Your task to perform on an android device: Add "asus zenbook" to the cart on bestbuy, then select checkout. Image 0: 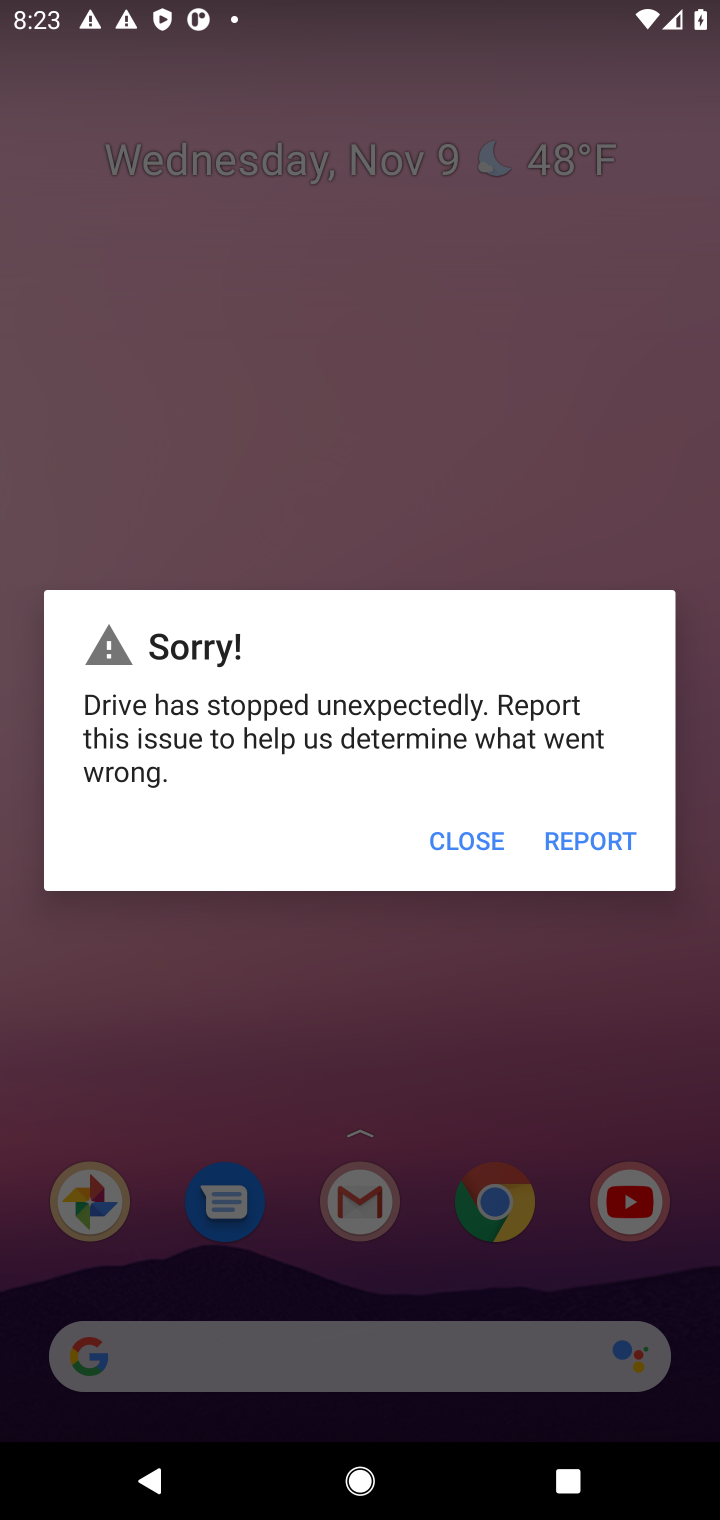
Step 0: press home button
Your task to perform on an android device: Add "asus zenbook" to the cart on bestbuy, then select checkout. Image 1: 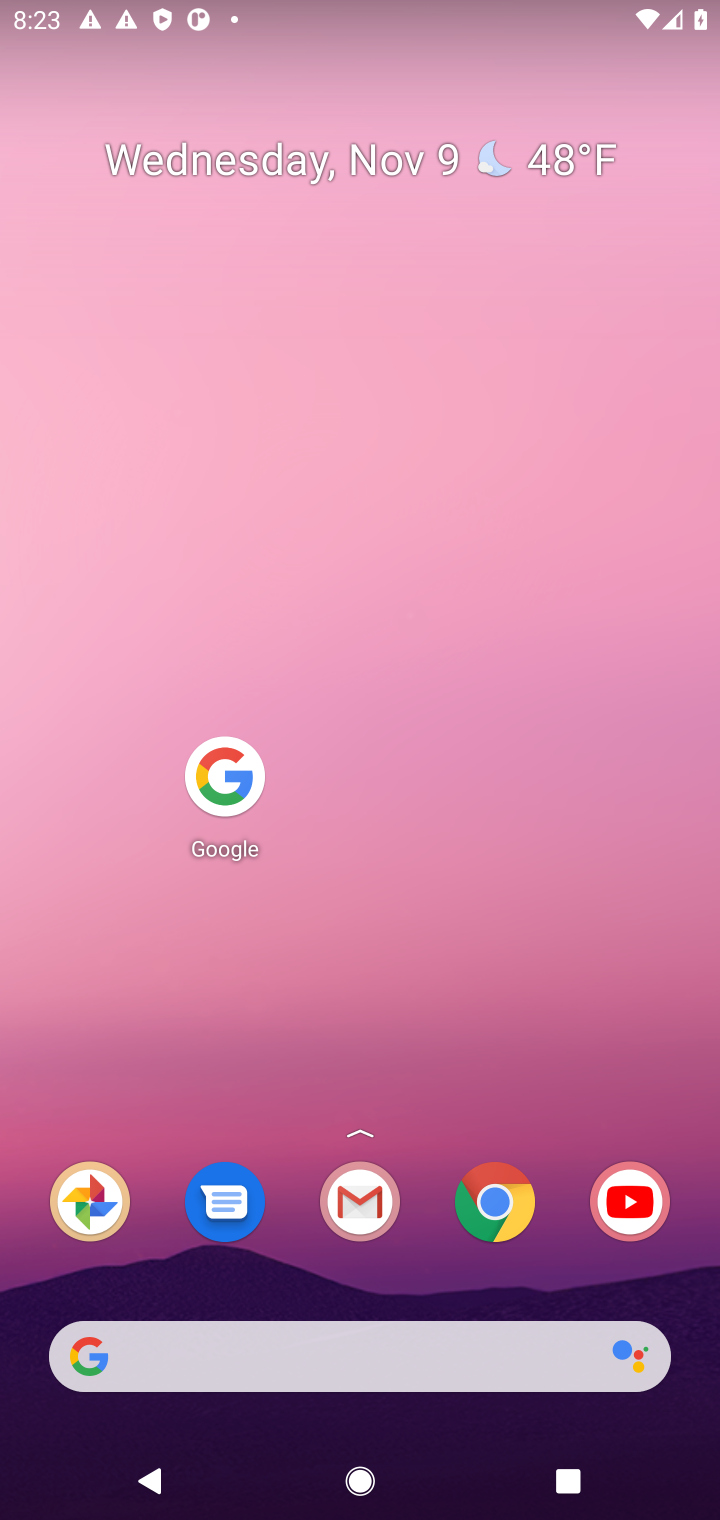
Step 1: click (226, 783)
Your task to perform on an android device: Add "asus zenbook" to the cart on bestbuy, then select checkout. Image 2: 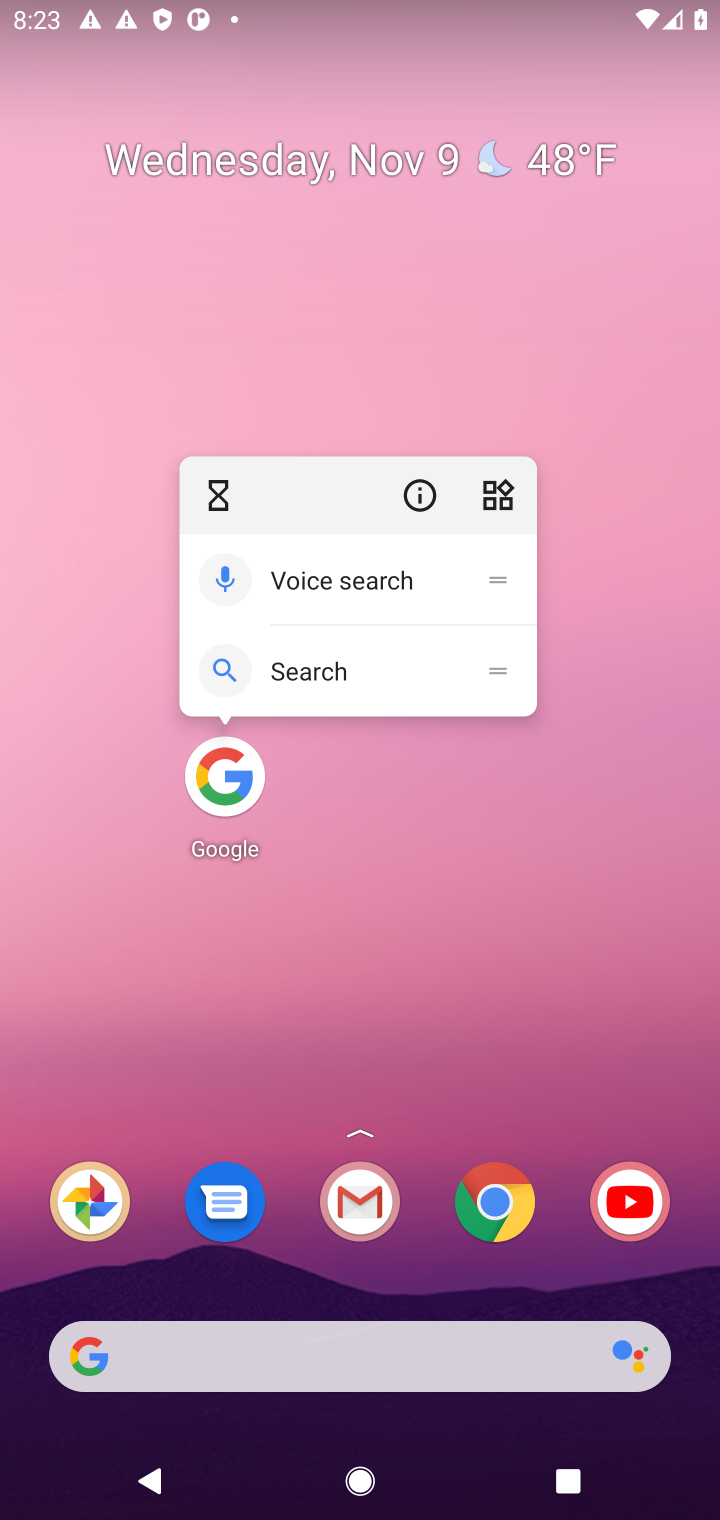
Step 2: click (226, 789)
Your task to perform on an android device: Add "asus zenbook" to the cart on bestbuy, then select checkout. Image 3: 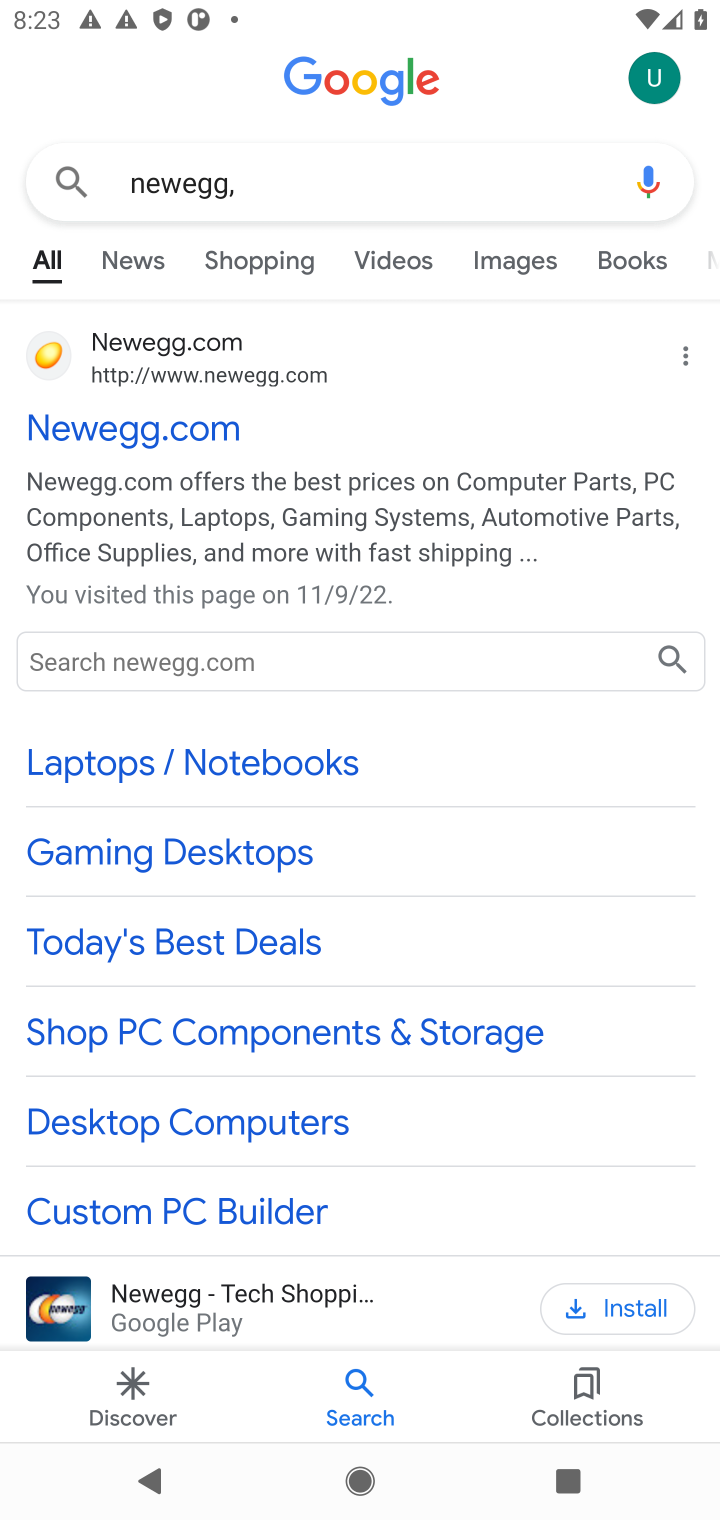
Step 3: click (290, 178)
Your task to perform on an android device: Add "asus zenbook" to the cart on bestbuy, then select checkout. Image 4: 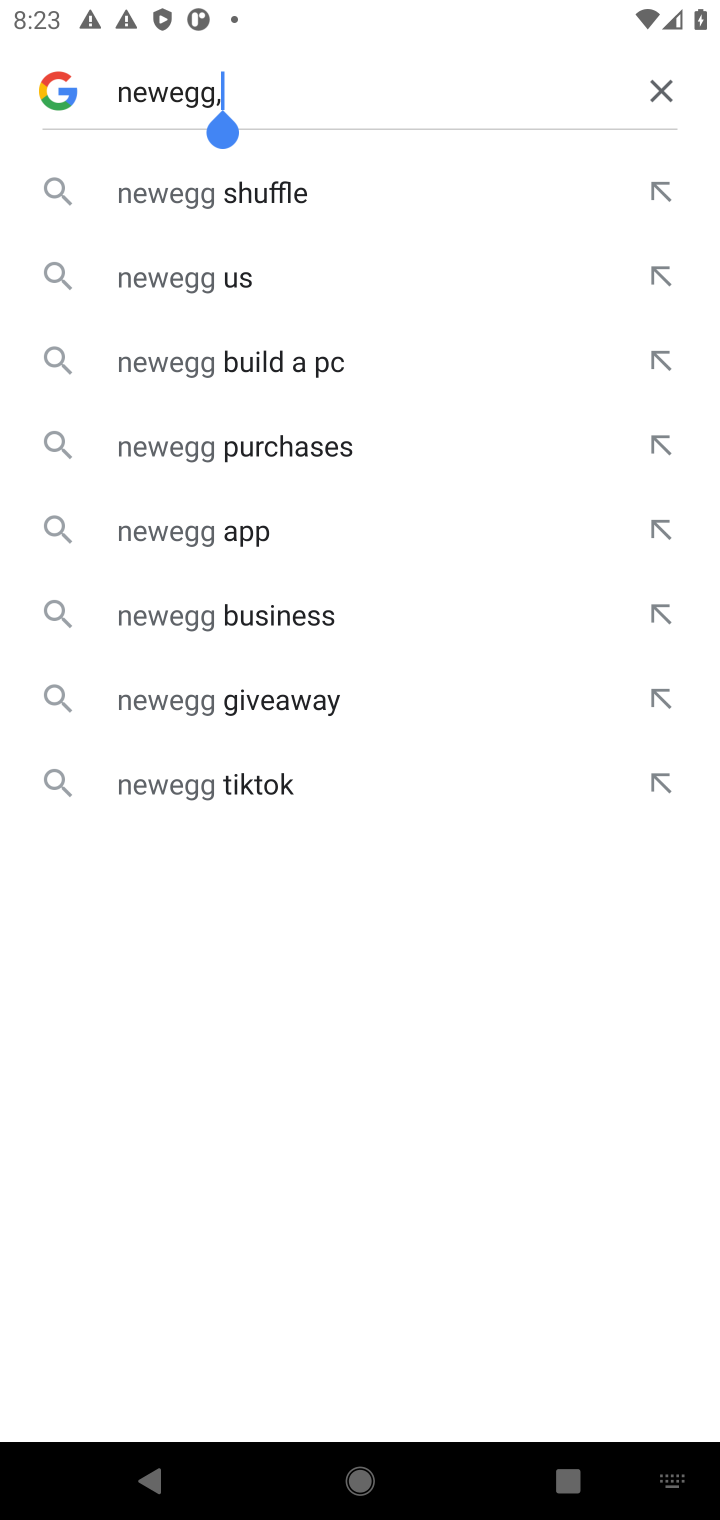
Step 4: click (652, 83)
Your task to perform on an android device: Add "asus zenbook" to the cart on bestbuy, then select checkout. Image 5: 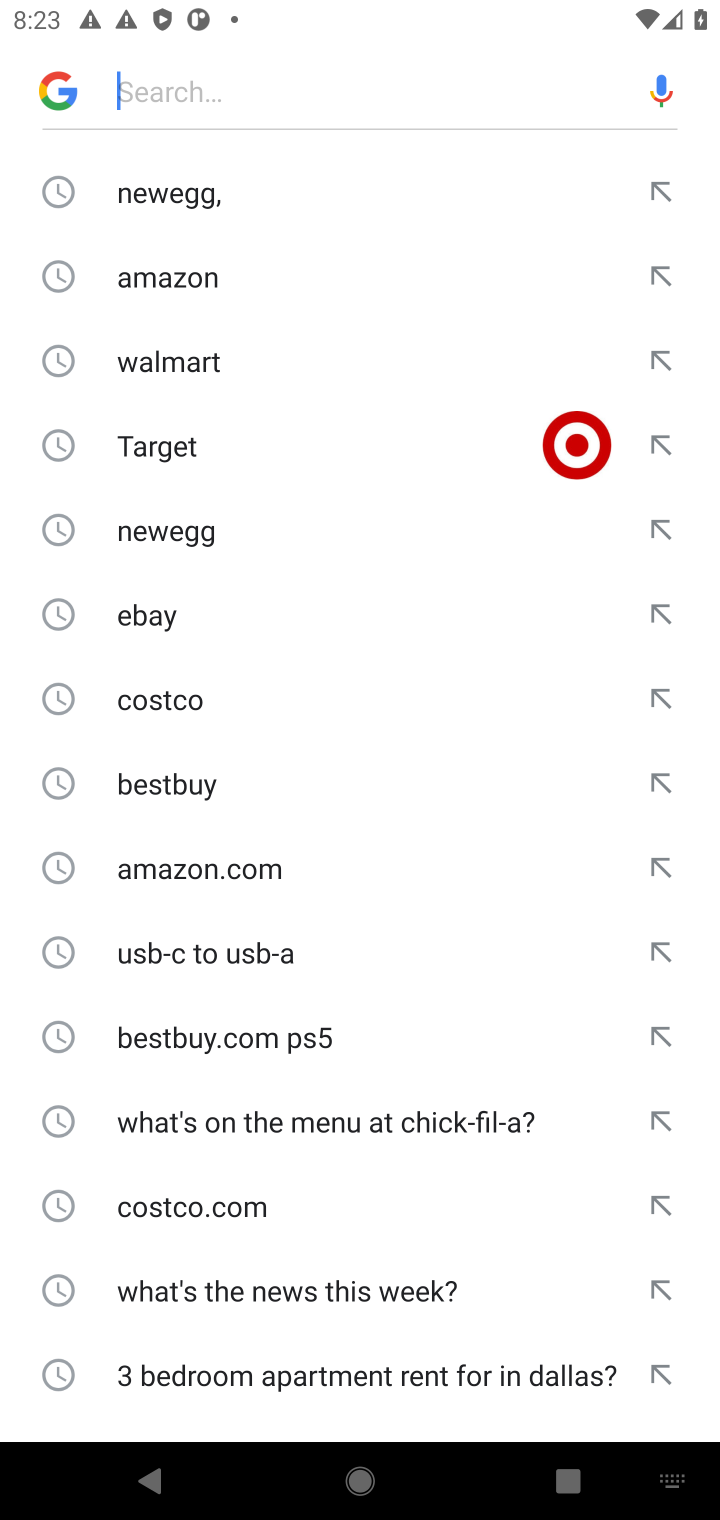
Step 5: click (184, 780)
Your task to perform on an android device: Add "asus zenbook" to the cart on bestbuy, then select checkout. Image 6: 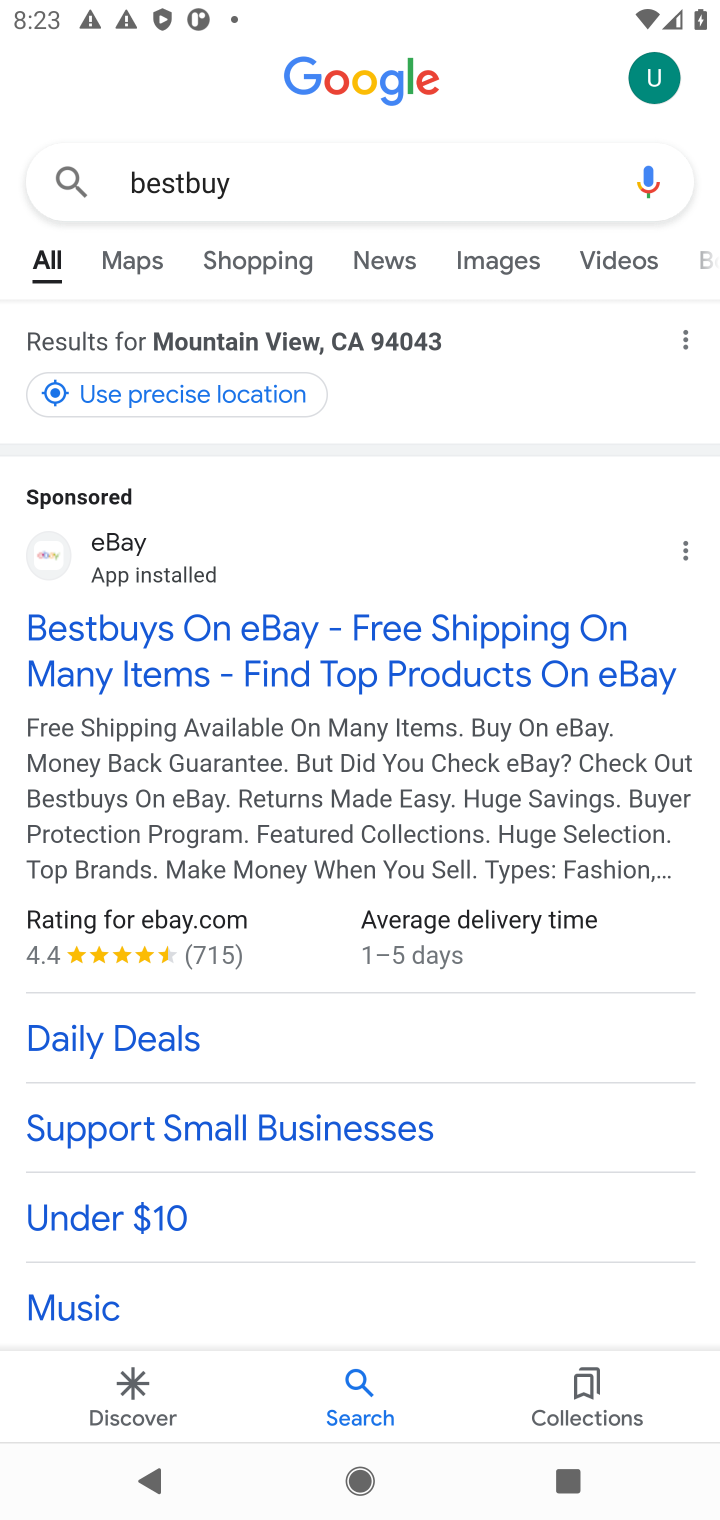
Step 6: drag from (337, 1037) to (557, 295)
Your task to perform on an android device: Add "asus zenbook" to the cart on bestbuy, then select checkout. Image 7: 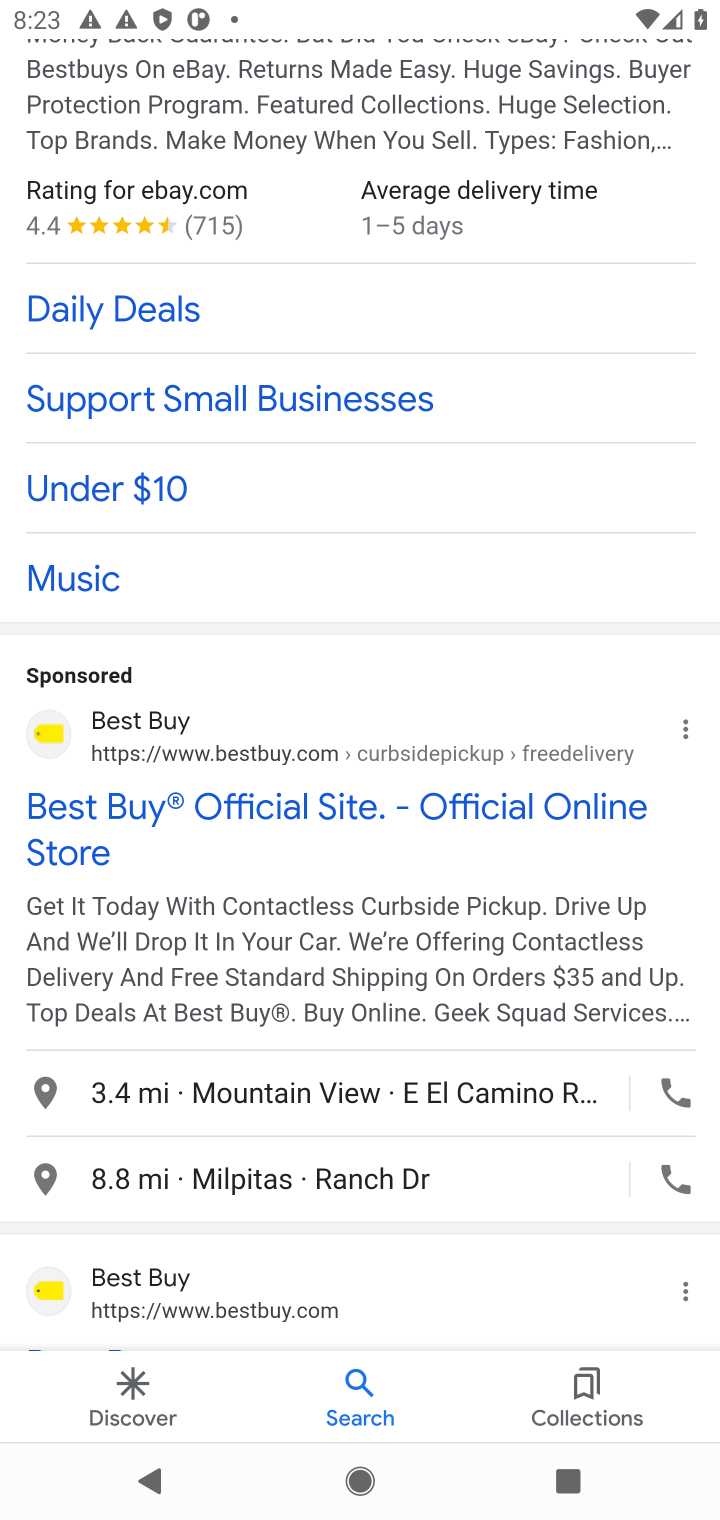
Step 7: click (133, 809)
Your task to perform on an android device: Add "asus zenbook" to the cart on bestbuy, then select checkout. Image 8: 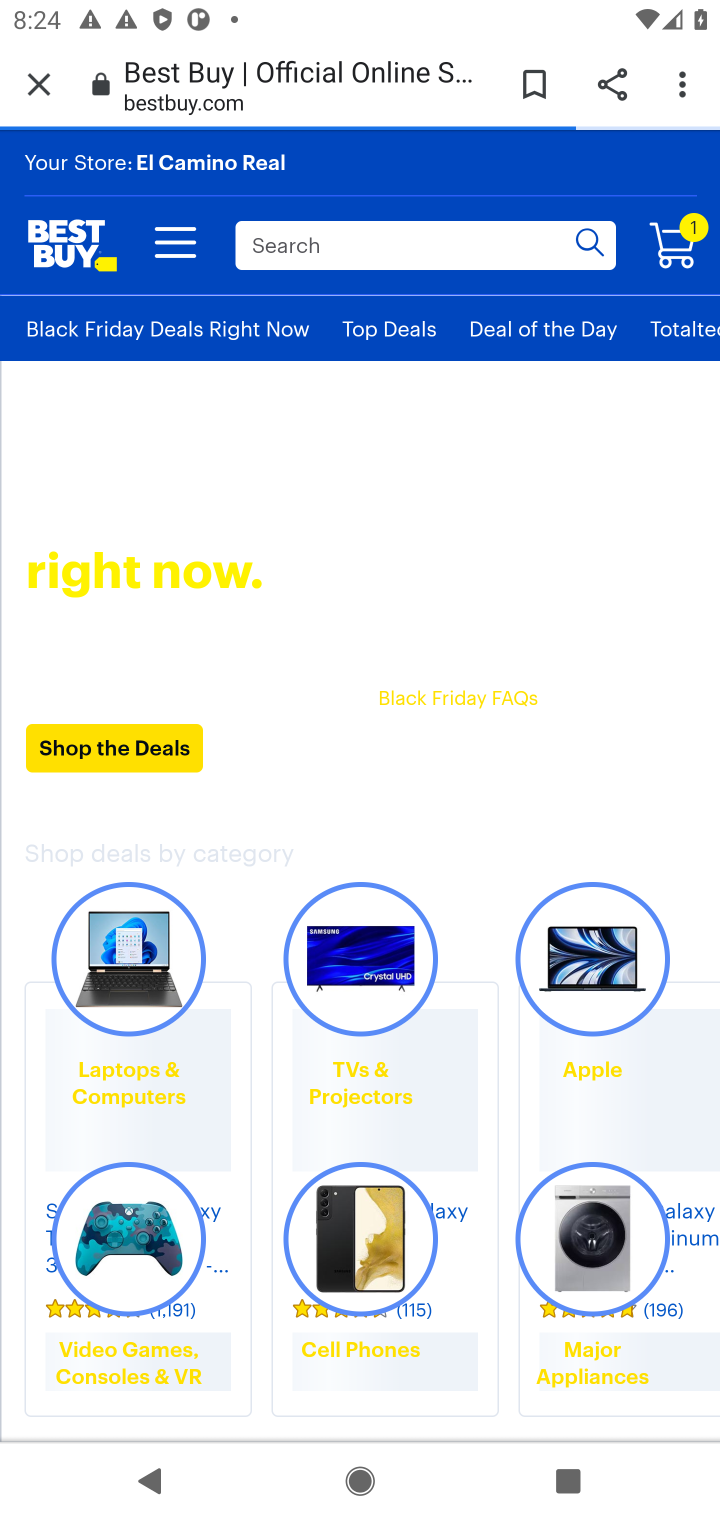
Step 8: click (327, 241)
Your task to perform on an android device: Add "asus zenbook" to the cart on bestbuy, then select checkout. Image 9: 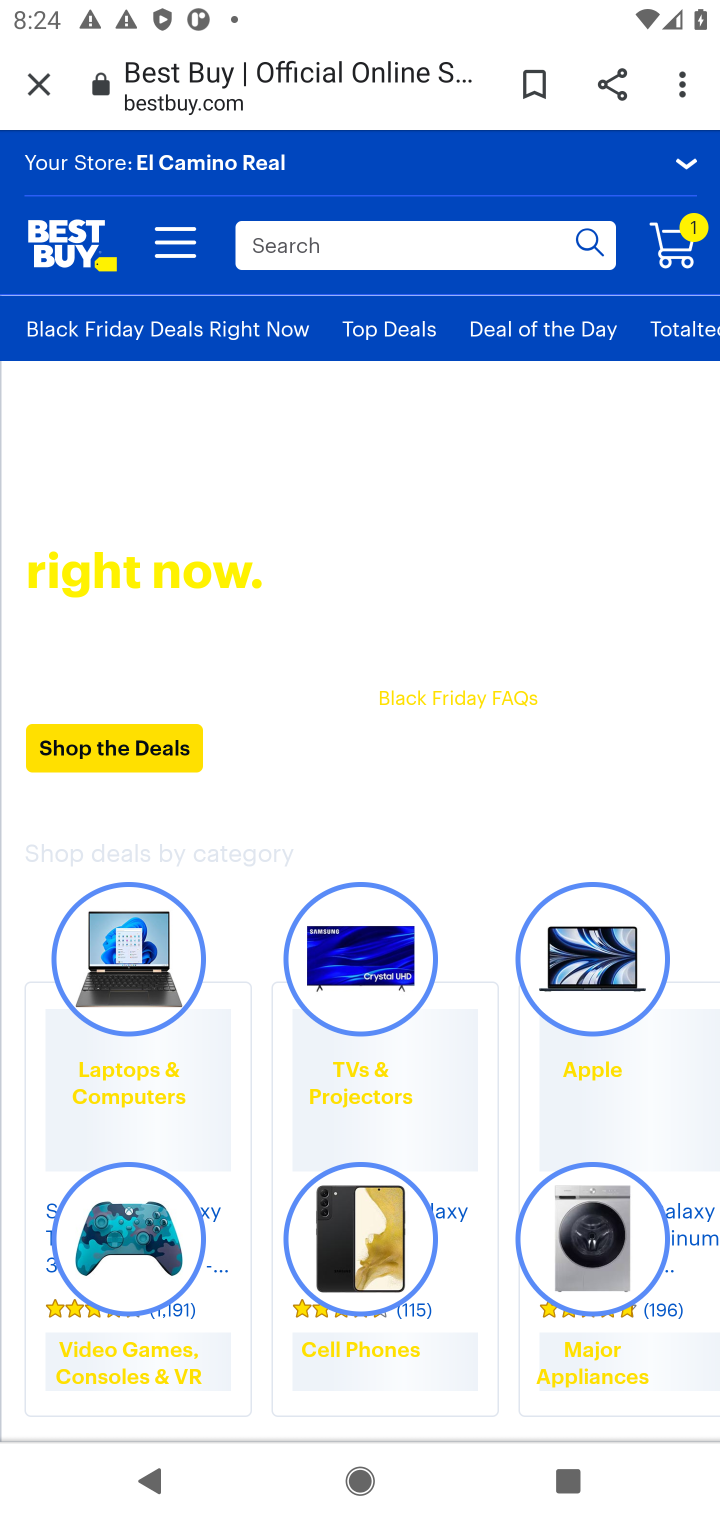
Step 9: click (312, 239)
Your task to perform on an android device: Add "asus zenbook" to the cart on bestbuy, then select checkout. Image 10: 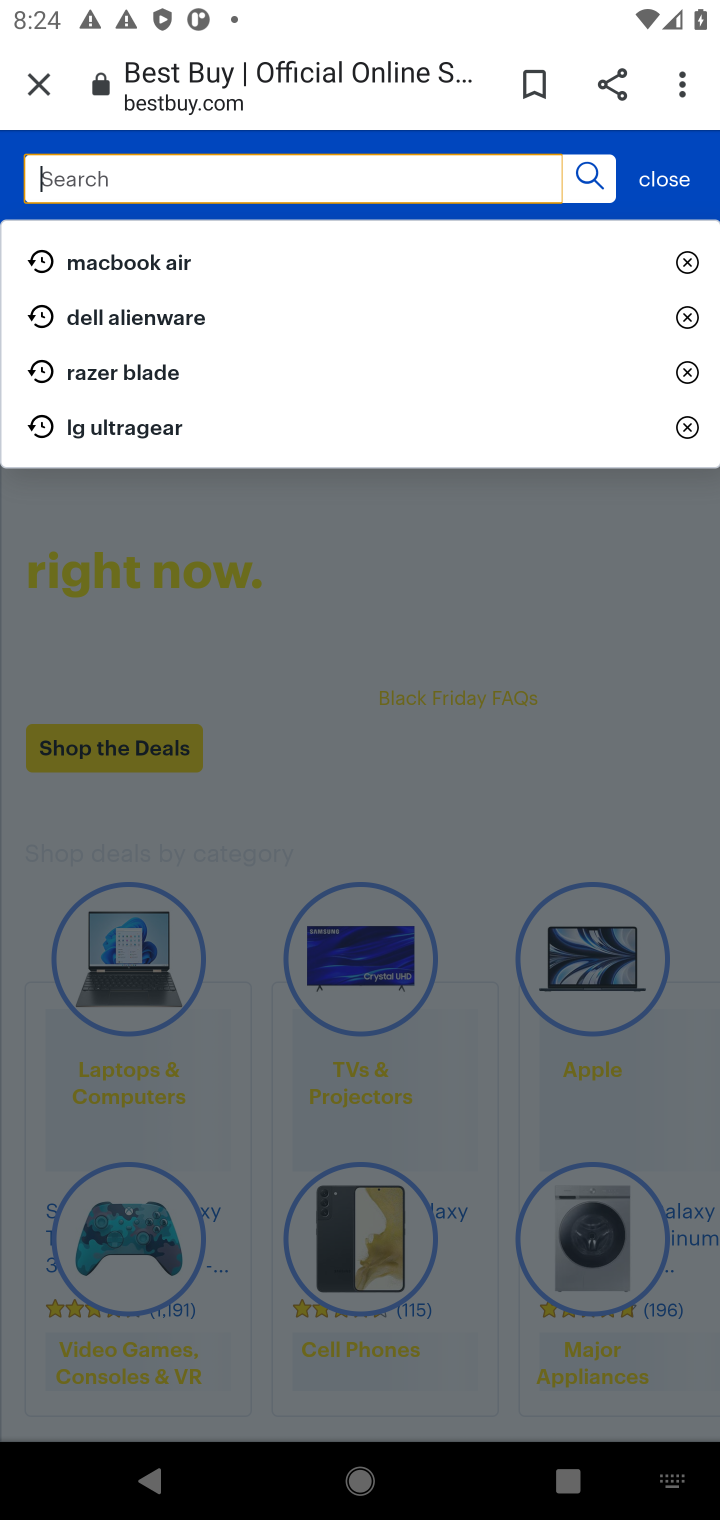
Step 10: type "asus zenbook"
Your task to perform on an android device: Add "asus zenbook" to the cart on bestbuy, then select checkout. Image 11: 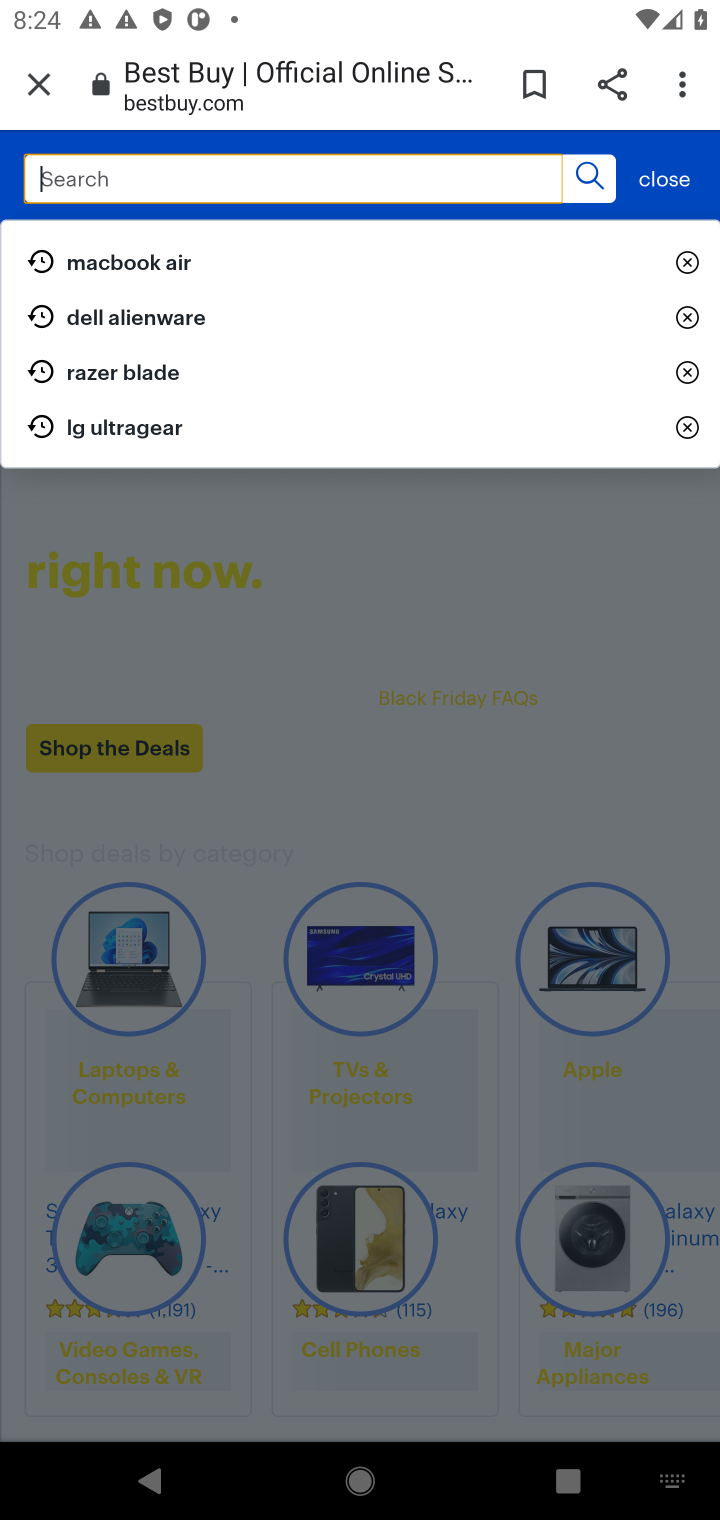
Step 11: press enter
Your task to perform on an android device: Add "asus zenbook" to the cart on bestbuy, then select checkout. Image 12: 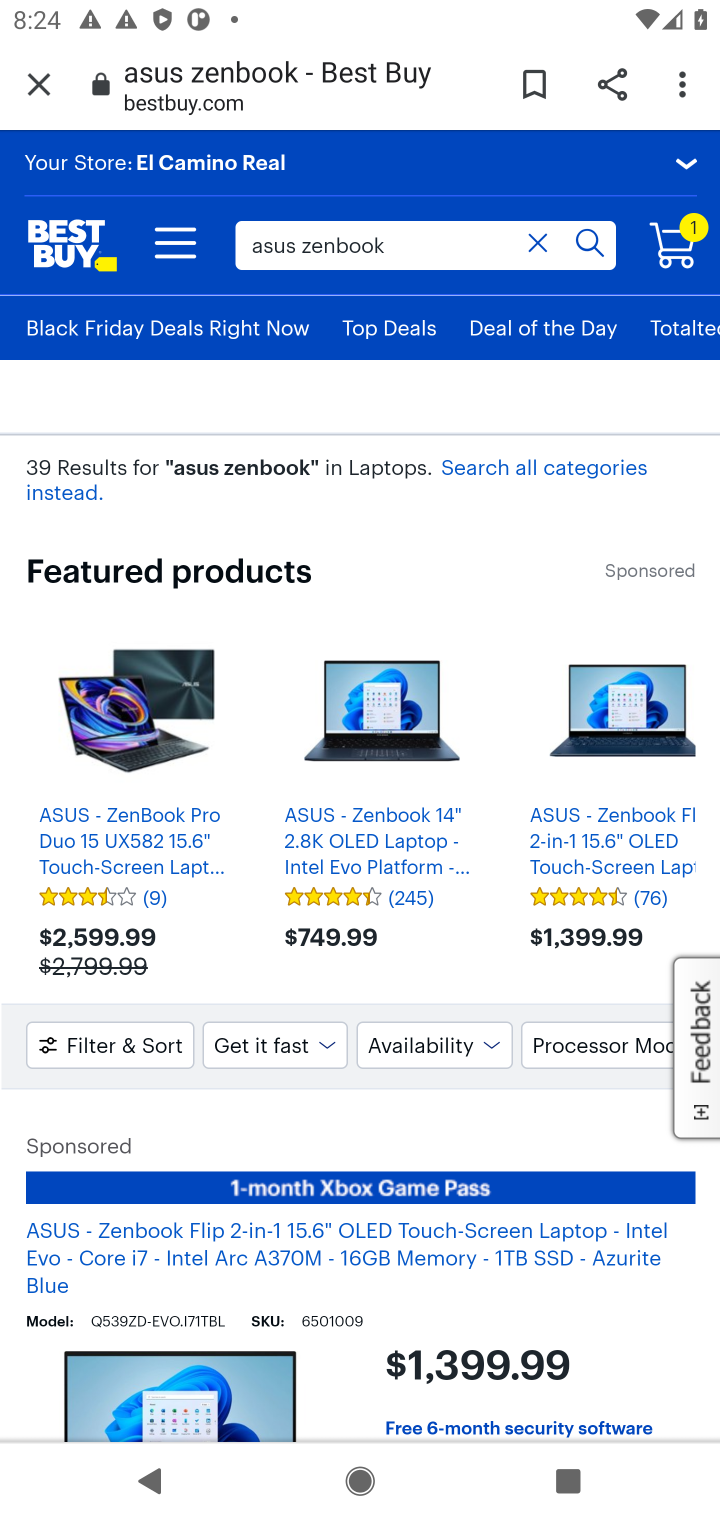
Step 12: drag from (333, 1263) to (573, 476)
Your task to perform on an android device: Add "asus zenbook" to the cart on bestbuy, then select checkout. Image 13: 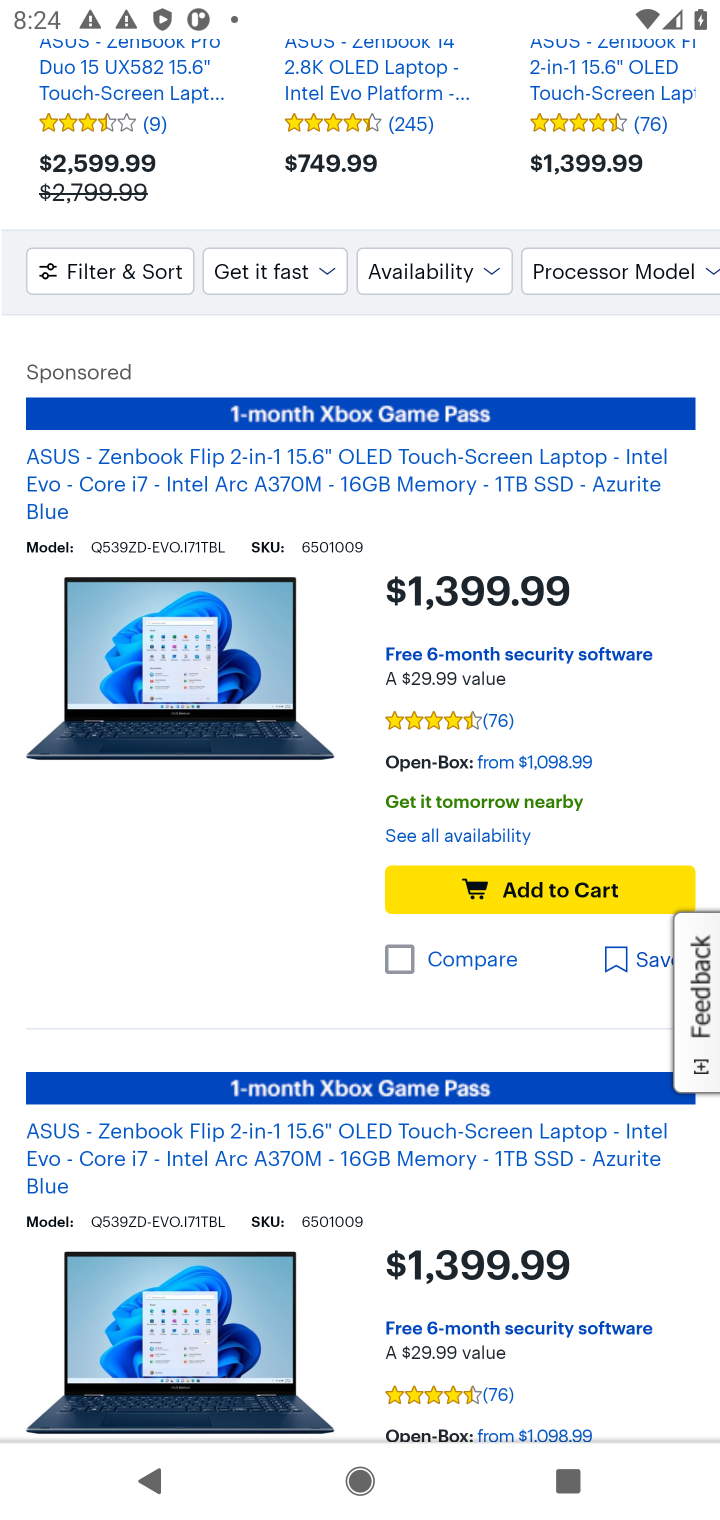
Step 13: click (541, 888)
Your task to perform on an android device: Add "asus zenbook" to the cart on bestbuy, then select checkout. Image 14: 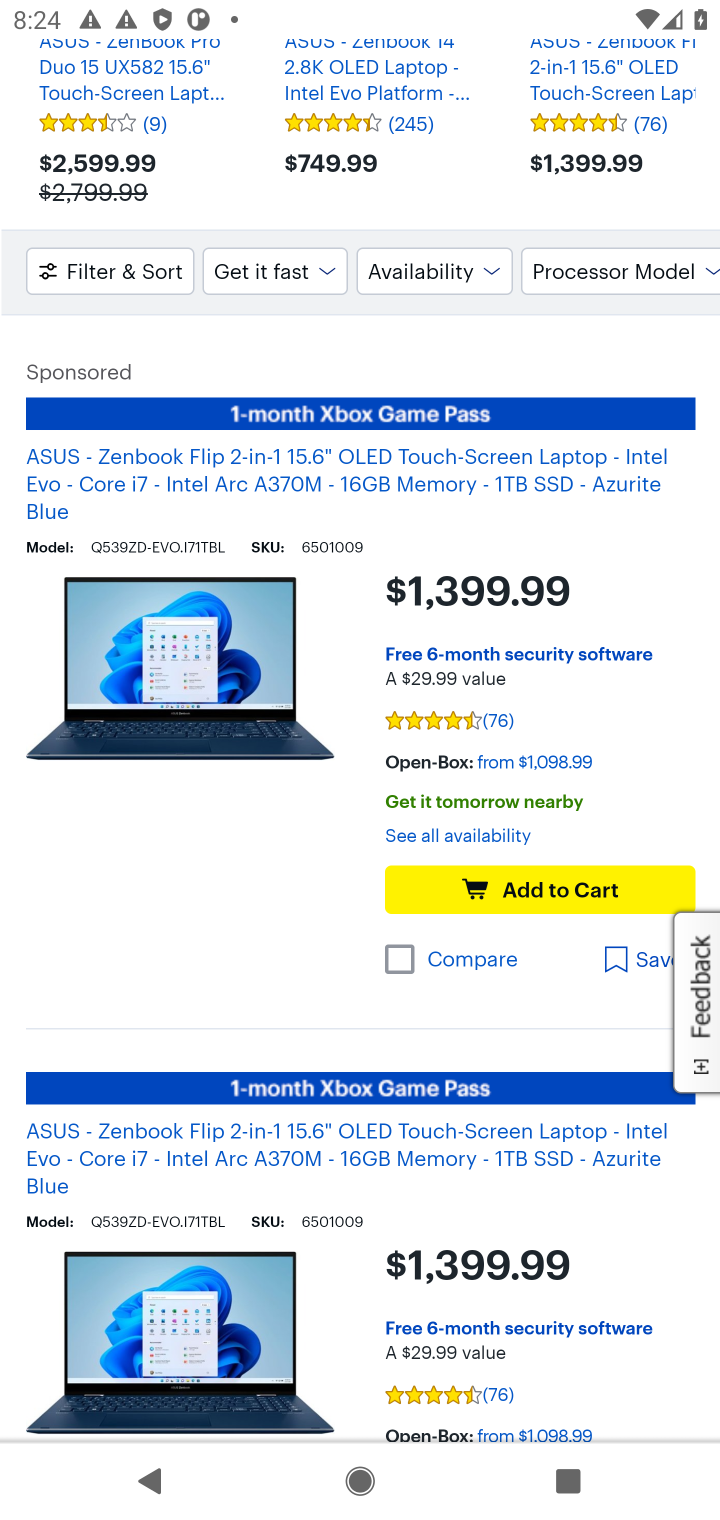
Step 14: drag from (367, 479) to (352, 1383)
Your task to perform on an android device: Add "asus zenbook" to the cart on bestbuy, then select checkout. Image 15: 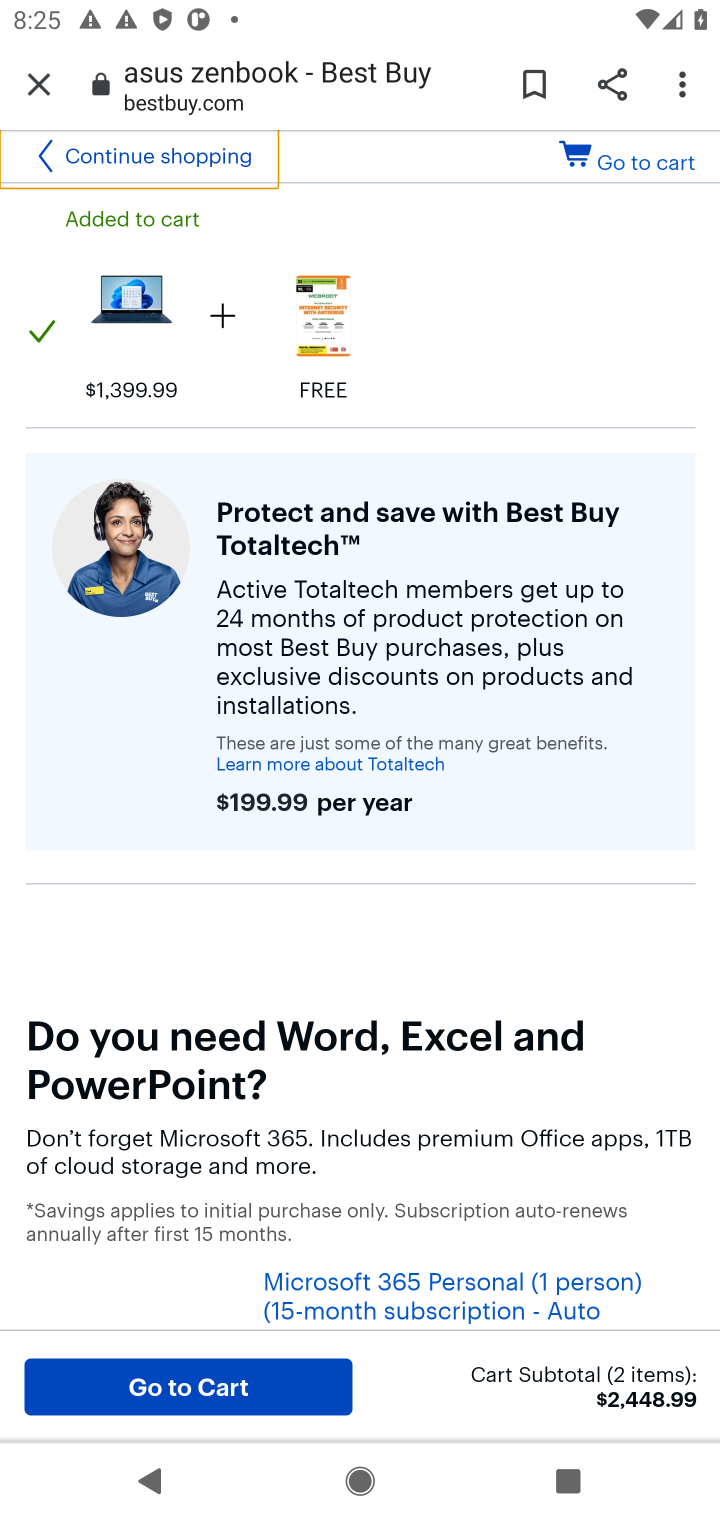
Step 15: click (653, 157)
Your task to perform on an android device: Add "asus zenbook" to the cart on bestbuy, then select checkout. Image 16: 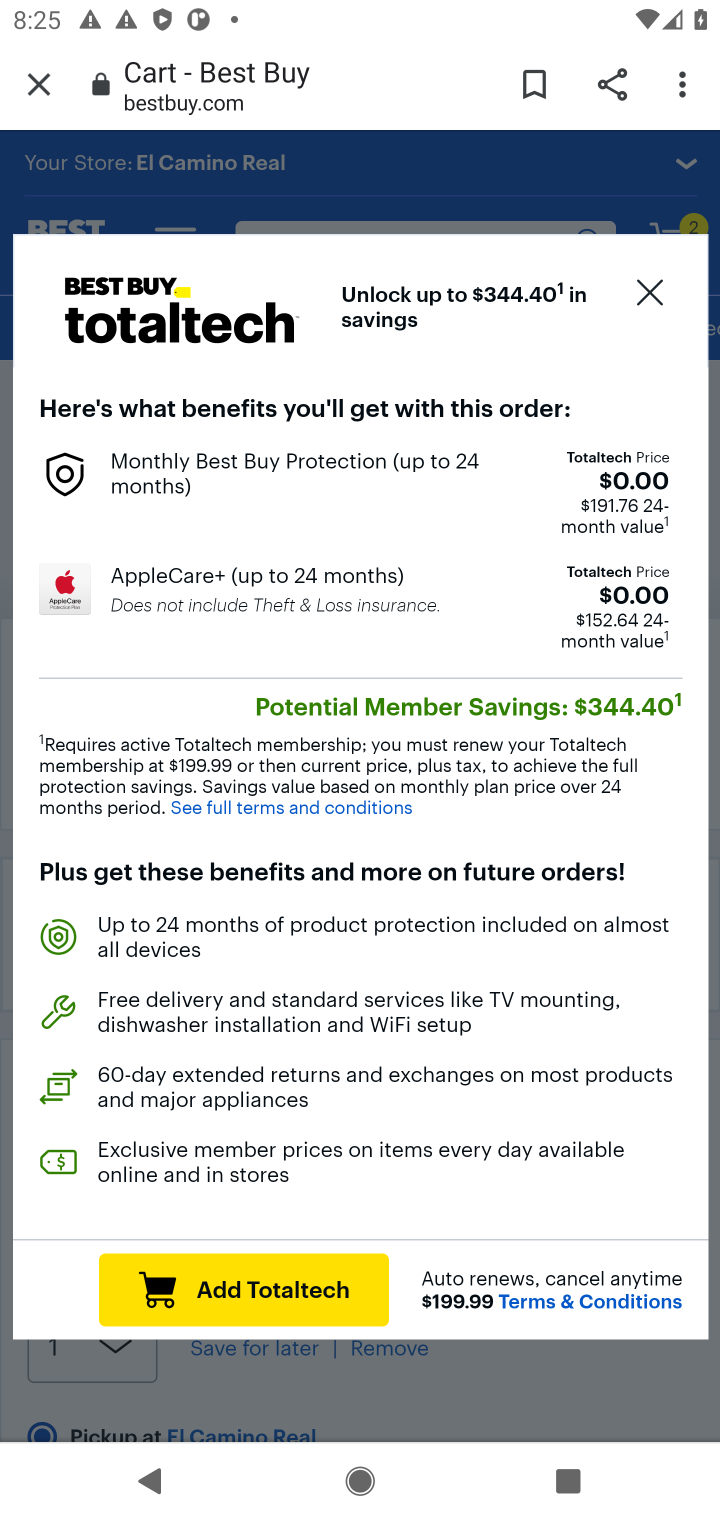
Step 16: click (659, 288)
Your task to perform on an android device: Add "asus zenbook" to the cart on bestbuy, then select checkout. Image 17: 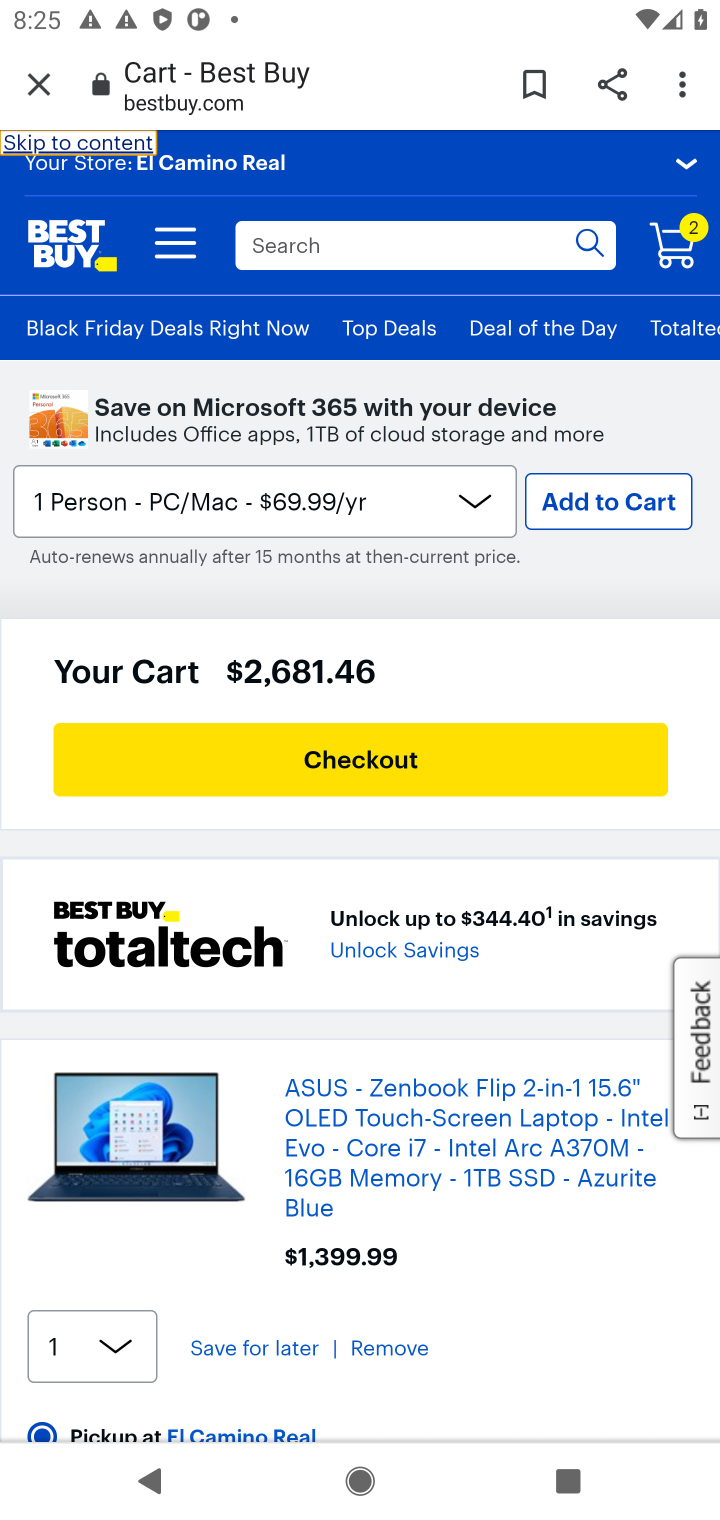
Step 17: drag from (344, 1232) to (580, 292)
Your task to perform on an android device: Add "asus zenbook" to the cart on bestbuy, then select checkout. Image 18: 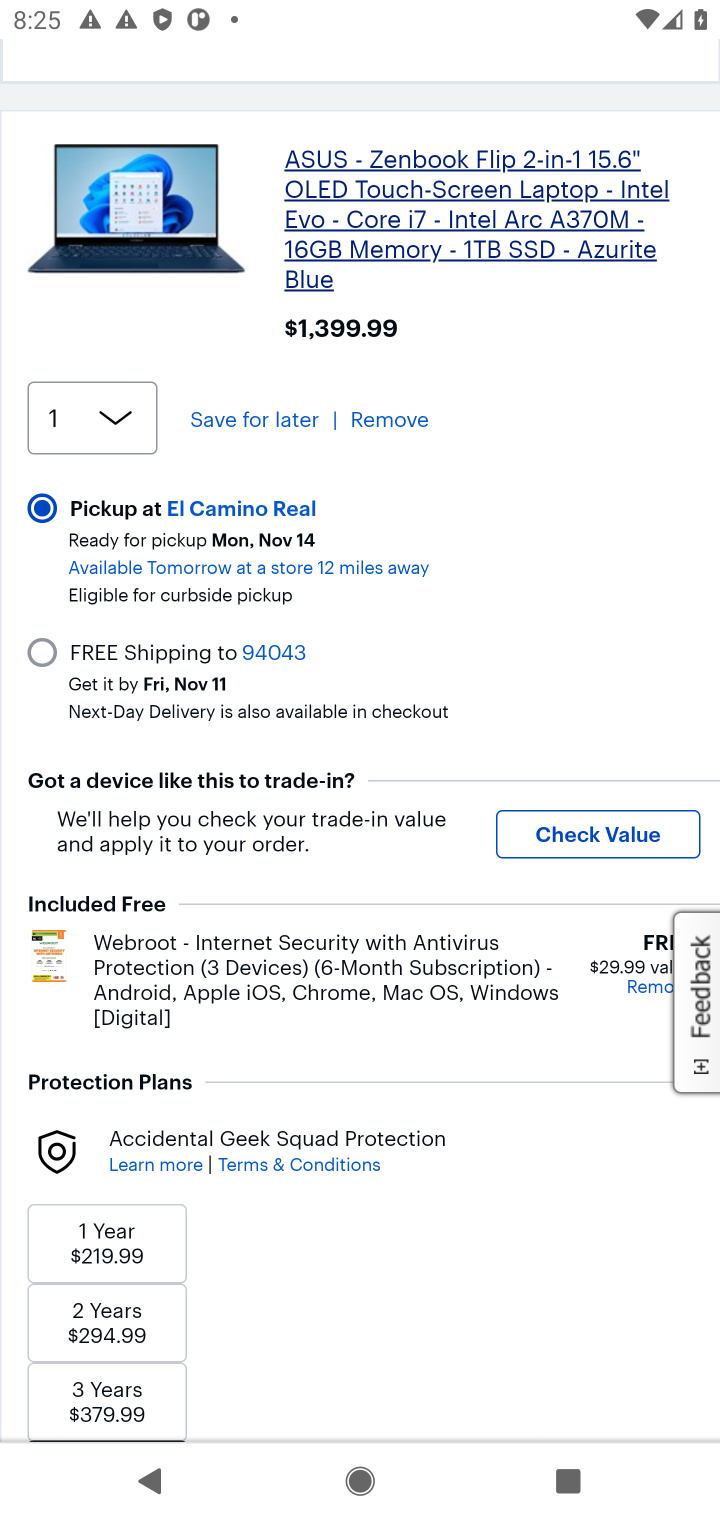
Step 18: drag from (410, 1143) to (591, 8)
Your task to perform on an android device: Add "asus zenbook" to the cart on bestbuy, then select checkout. Image 19: 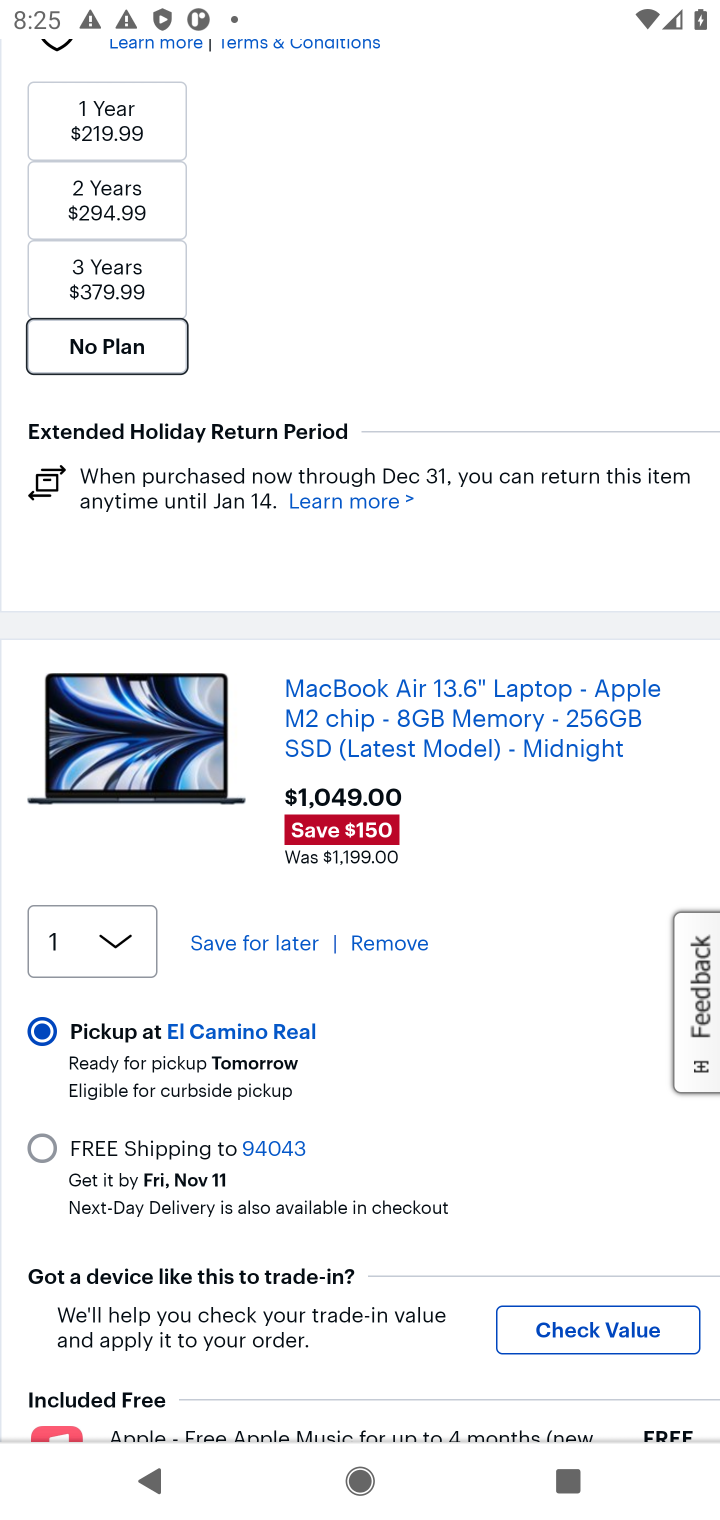
Step 19: drag from (263, 1202) to (402, 886)
Your task to perform on an android device: Add "asus zenbook" to the cart on bestbuy, then select checkout. Image 20: 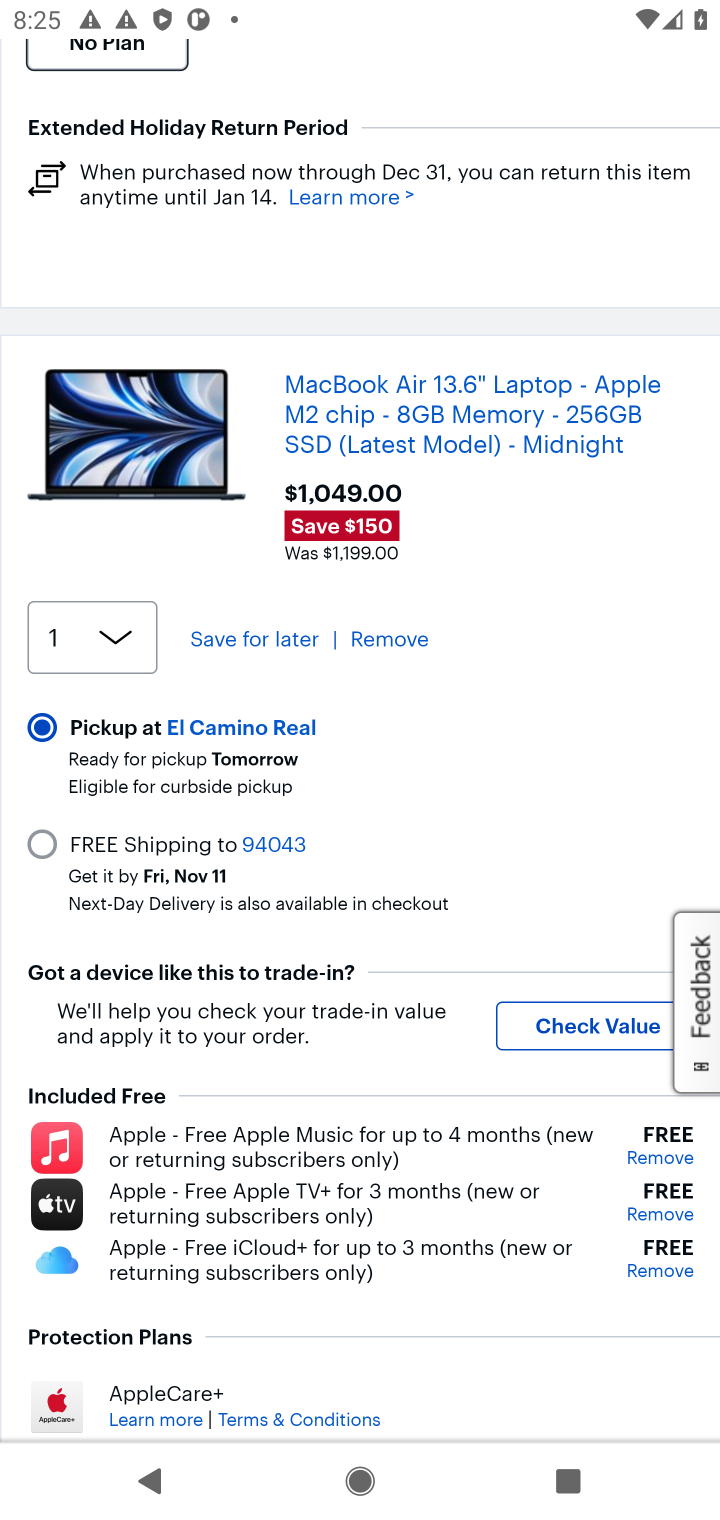
Step 20: drag from (312, 1258) to (446, 724)
Your task to perform on an android device: Add "asus zenbook" to the cart on bestbuy, then select checkout. Image 21: 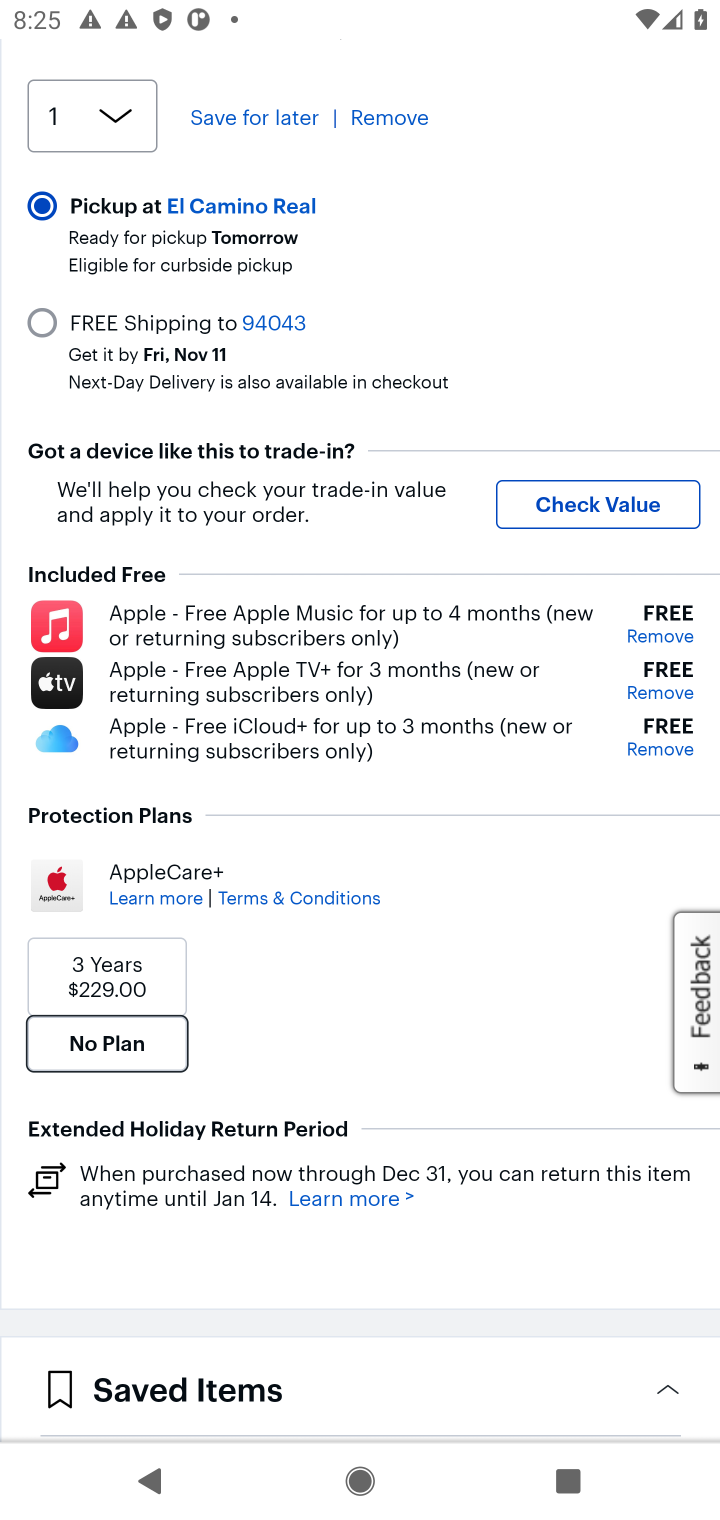
Step 21: click (398, 109)
Your task to perform on an android device: Add "asus zenbook" to the cart on bestbuy, then select checkout. Image 22: 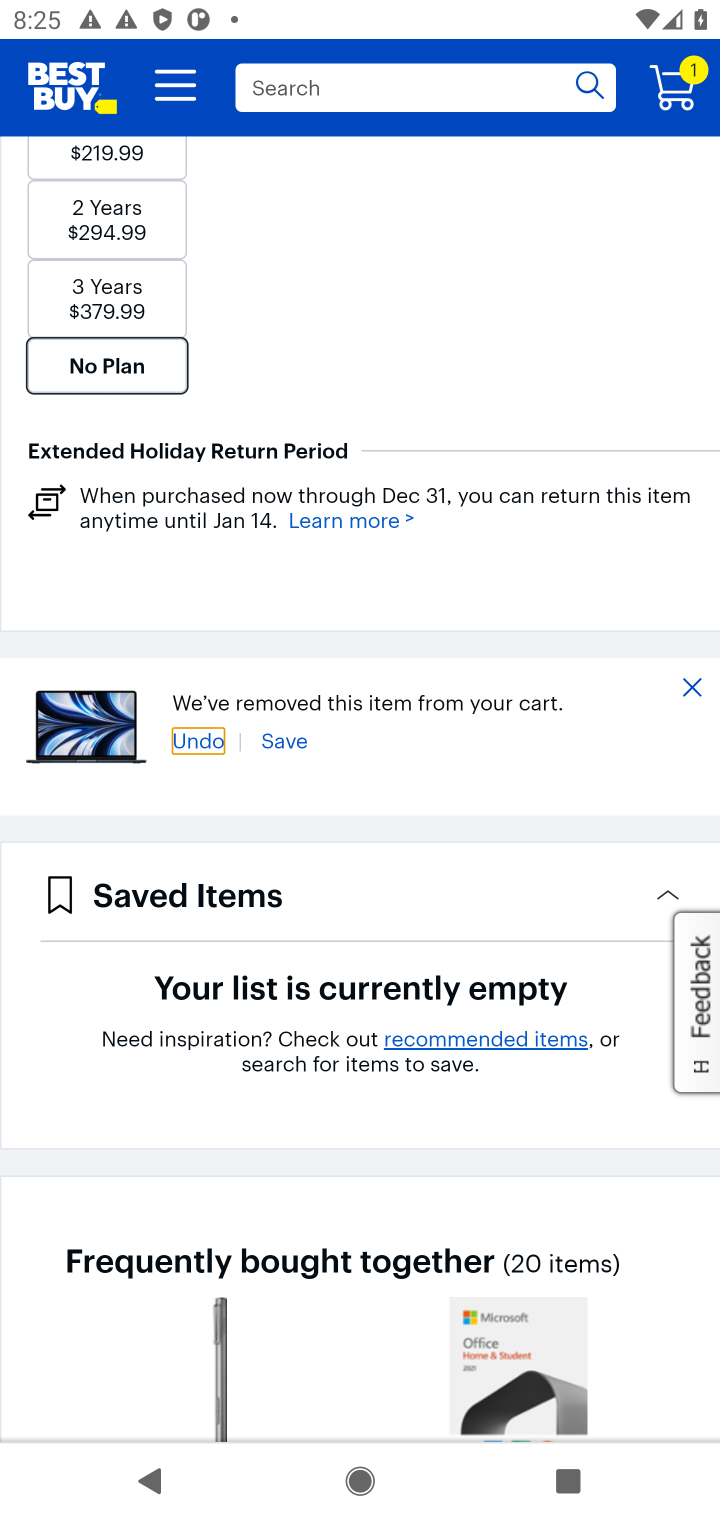
Step 22: drag from (388, 238) to (433, 1215)
Your task to perform on an android device: Add "asus zenbook" to the cart on bestbuy, then select checkout. Image 23: 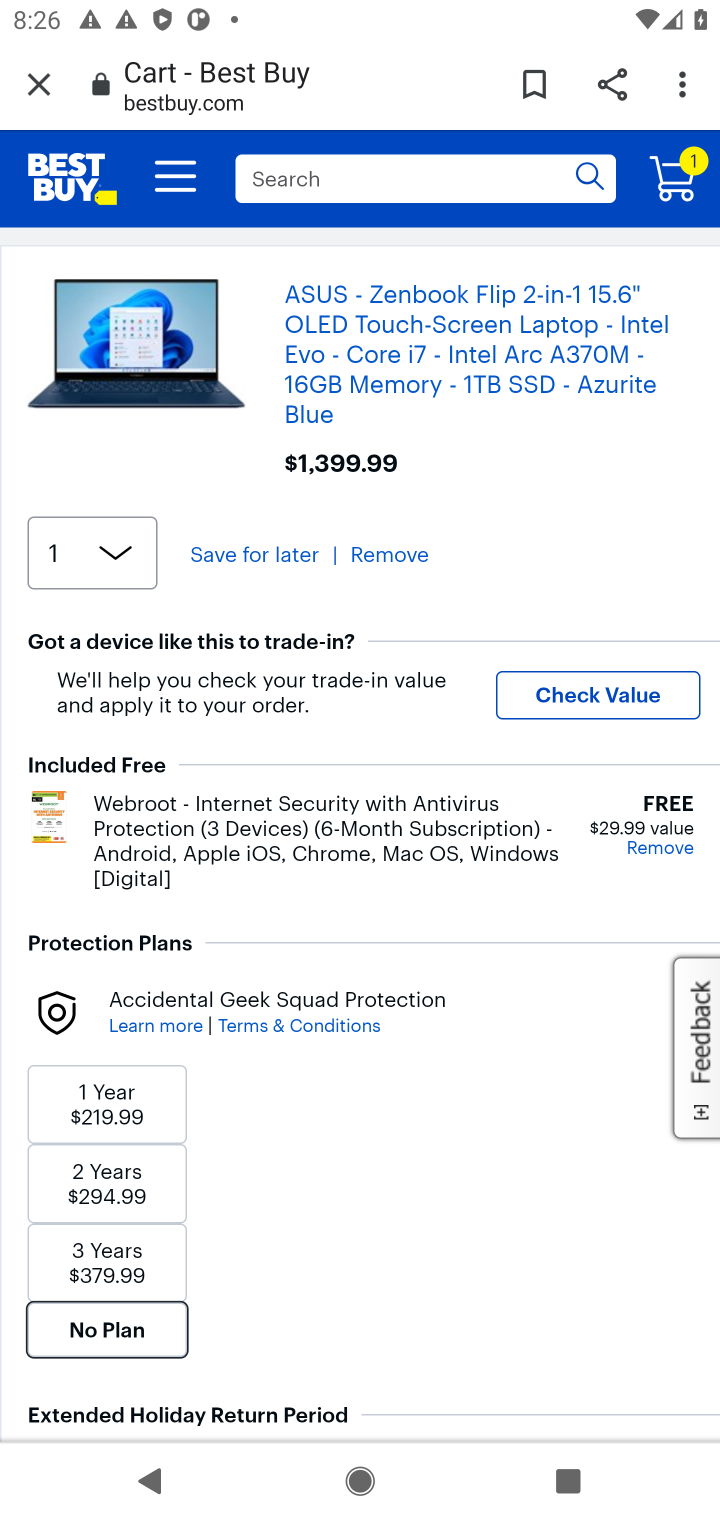
Step 23: drag from (475, 449) to (536, 1338)
Your task to perform on an android device: Add "asus zenbook" to the cart on bestbuy, then select checkout. Image 24: 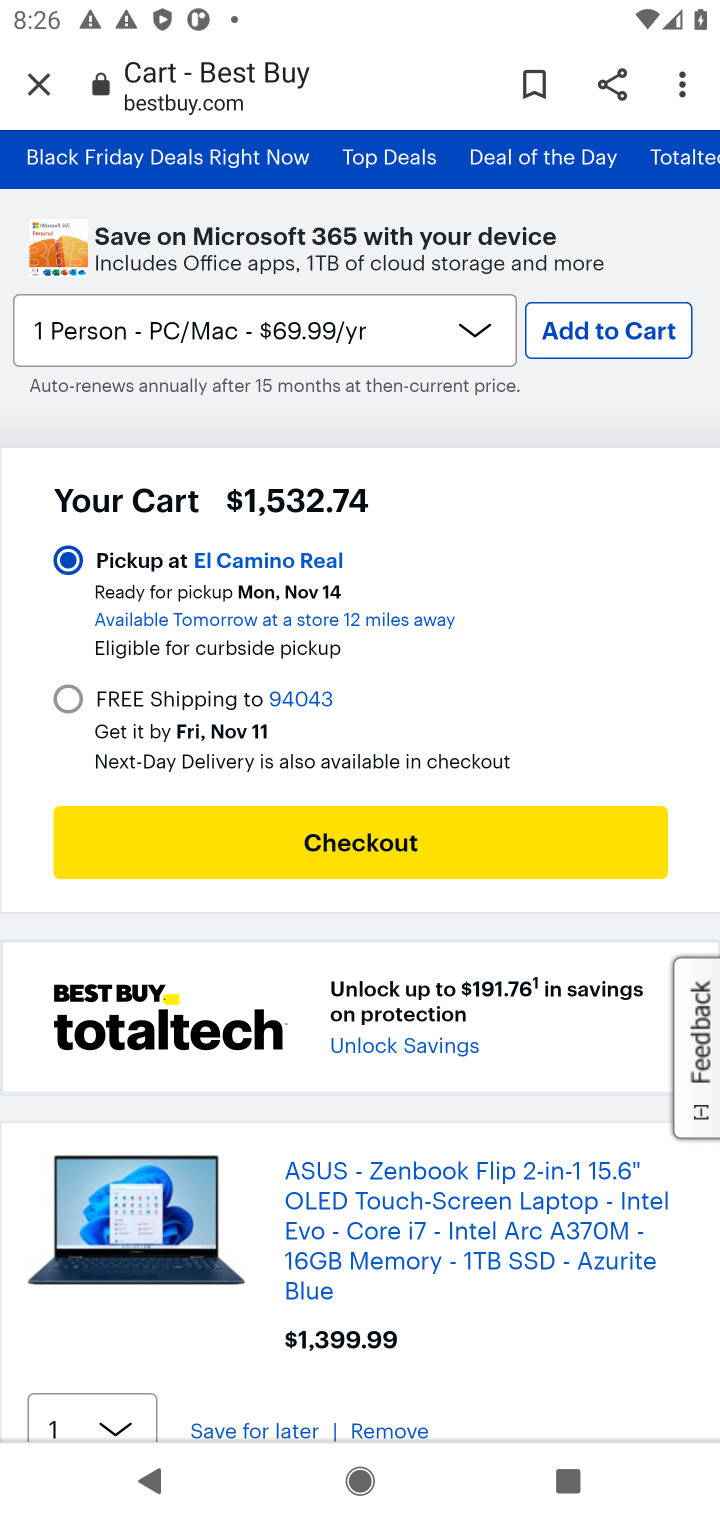
Step 24: click (351, 837)
Your task to perform on an android device: Add "asus zenbook" to the cart on bestbuy, then select checkout. Image 25: 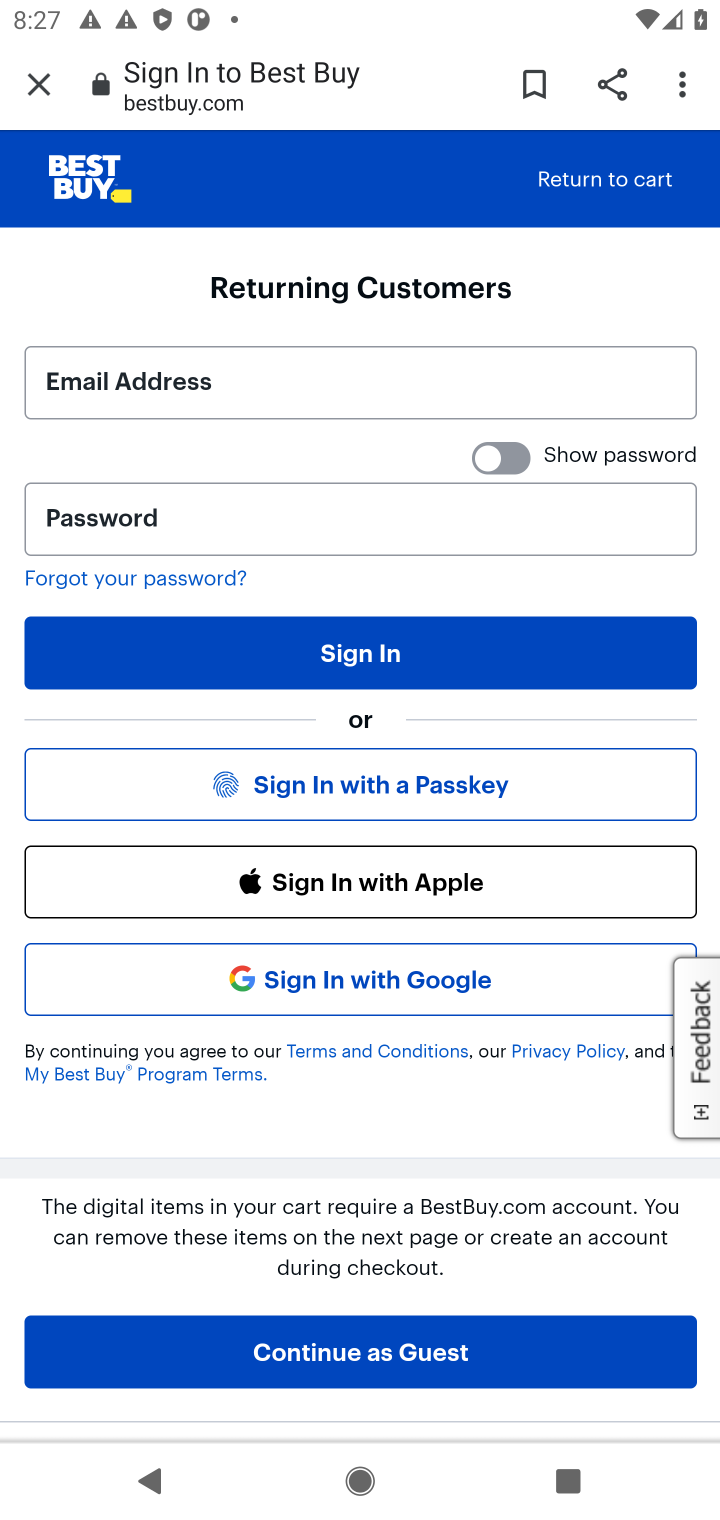
Step 25: task complete